Your task to perform on an android device: refresh tabs in the chrome app Image 0: 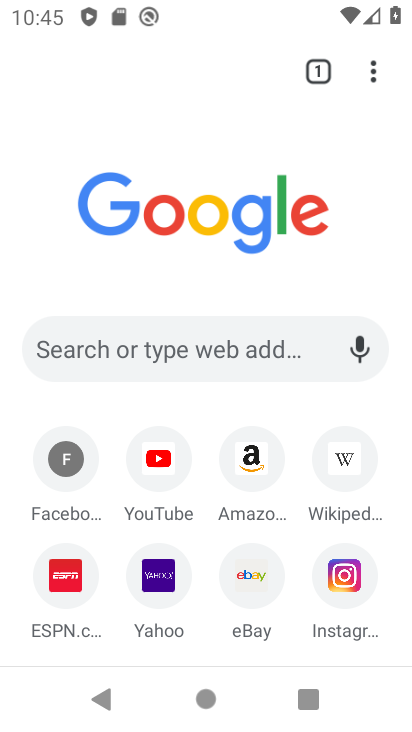
Step 0: press back button
Your task to perform on an android device: refresh tabs in the chrome app Image 1: 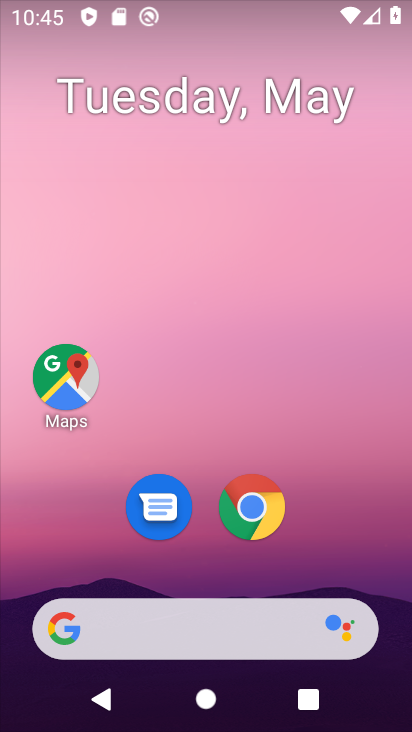
Step 1: drag from (258, 694) to (165, 90)
Your task to perform on an android device: refresh tabs in the chrome app Image 2: 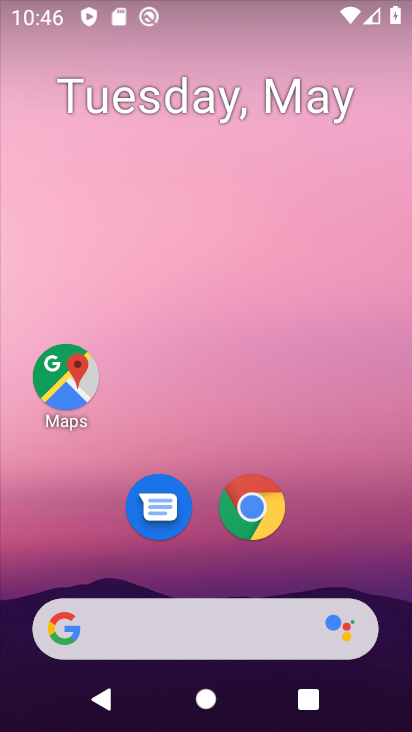
Step 2: drag from (275, 685) to (190, 105)
Your task to perform on an android device: refresh tabs in the chrome app Image 3: 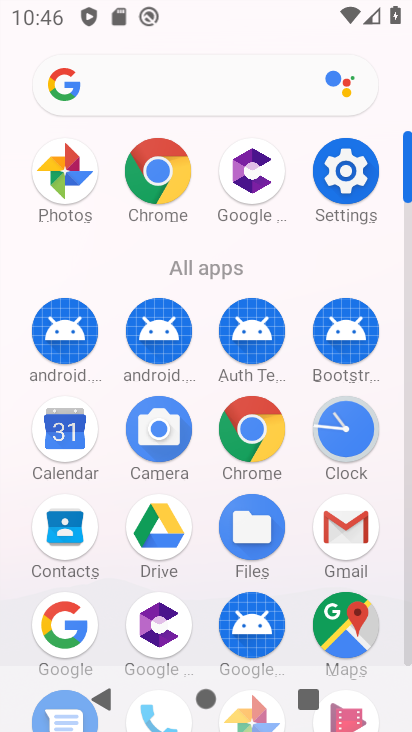
Step 3: drag from (230, 662) to (144, 0)
Your task to perform on an android device: refresh tabs in the chrome app Image 4: 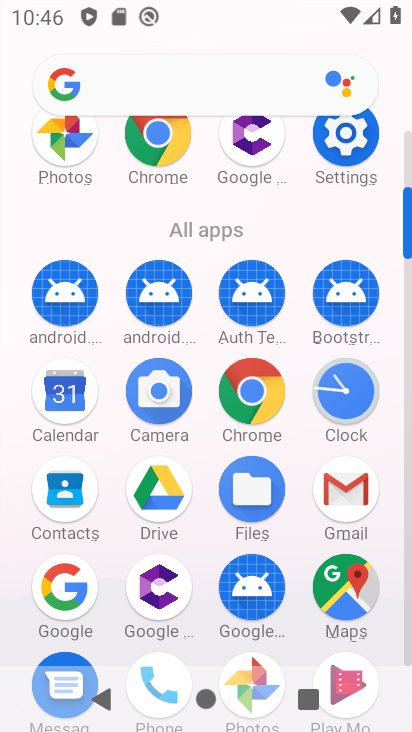
Step 4: click (157, 135)
Your task to perform on an android device: refresh tabs in the chrome app Image 5: 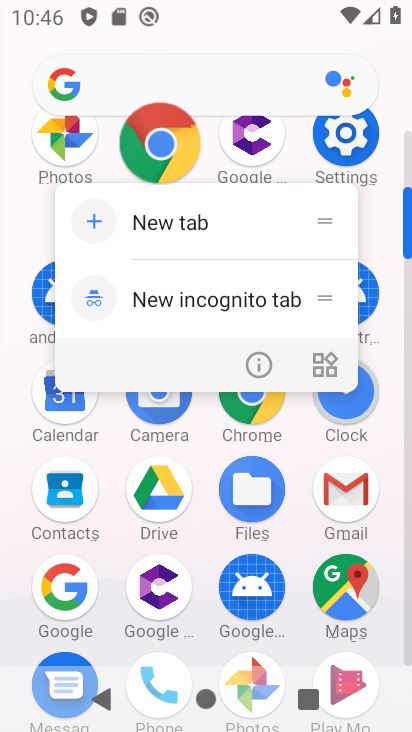
Step 5: click (159, 145)
Your task to perform on an android device: refresh tabs in the chrome app Image 6: 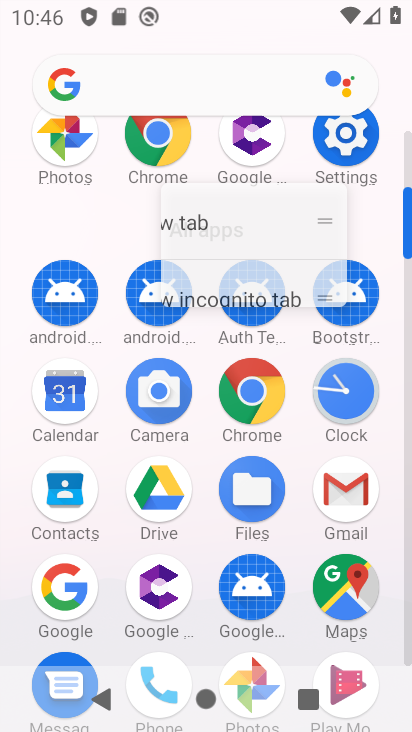
Step 6: click (159, 145)
Your task to perform on an android device: refresh tabs in the chrome app Image 7: 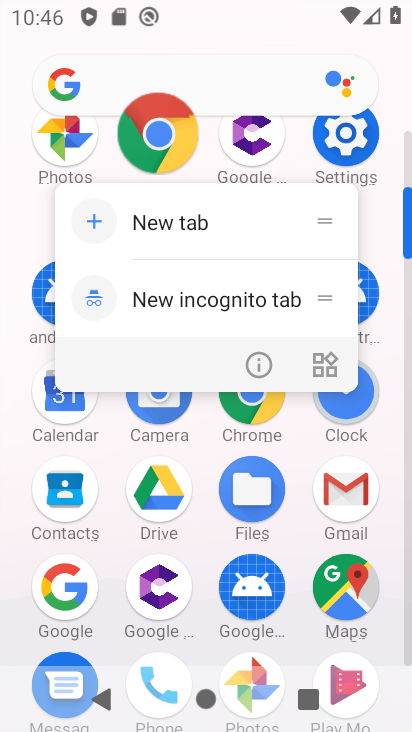
Step 7: click (159, 147)
Your task to perform on an android device: refresh tabs in the chrome app Image 8: 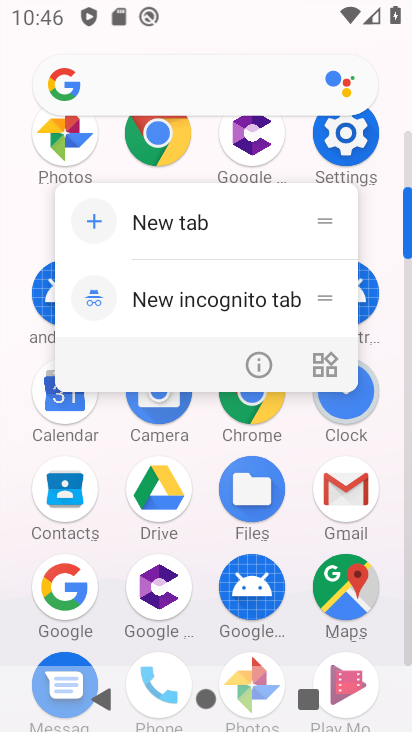
Step 8: click (160, 148)
Your task to perform on an android device: refresh tabs in the chrome app Image 9: 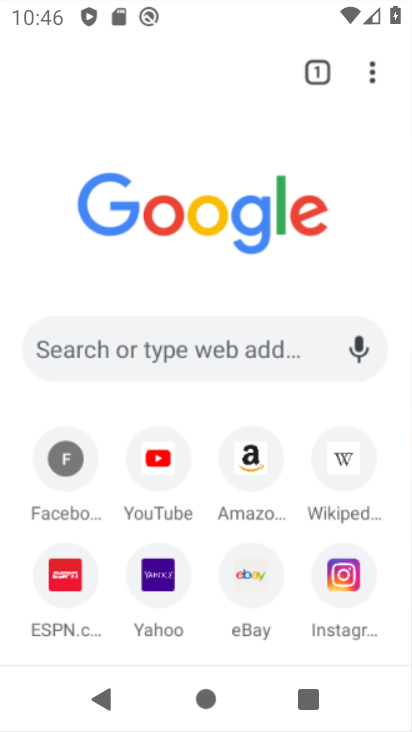
Step 9: click (163, 143)
Your task to perform on an android device: refresh tabs in the chrome app Image 10: 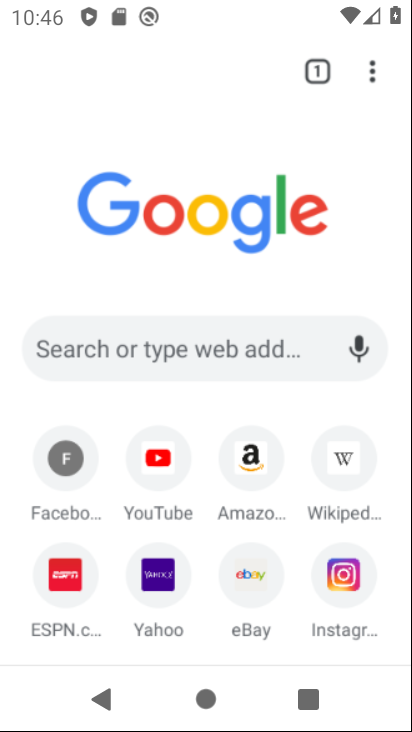
Step 10: click (163, 143)
Your task to perform on an android device: refresh tabs in the chrome app Image 11: 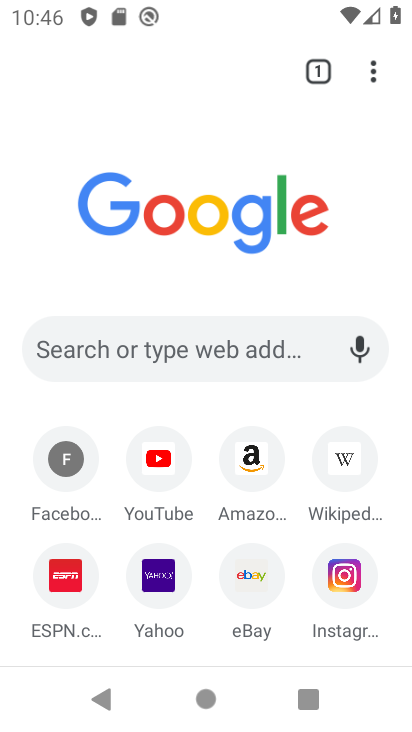
Step 11: click (368, 66)
Your task to perform on an android device: refresh tabs in the chrome app Image 12: 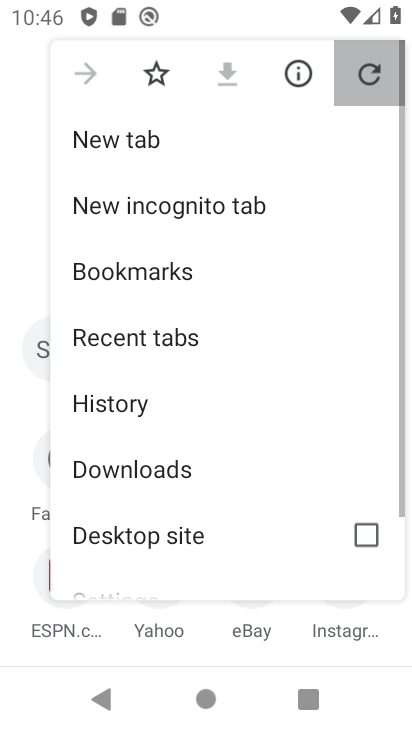
Step 12: click (368, 68)
Your task to perform on an android device: refresh tabs in the chrome app Image 13: 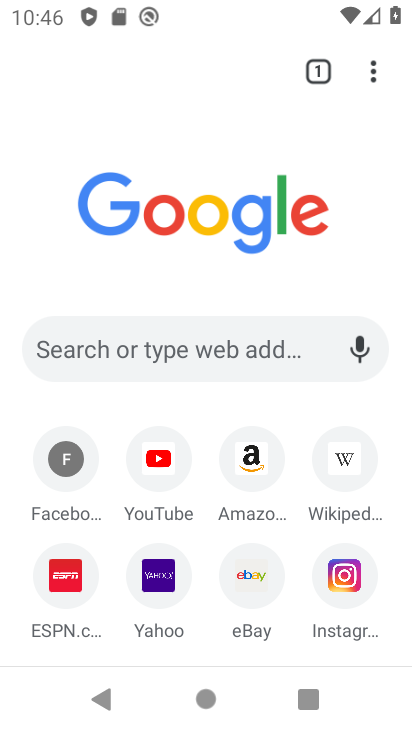
Step 13: click (368, 68)
Your task to perform on an android device: refresh tabs in the chrome app Image 14: 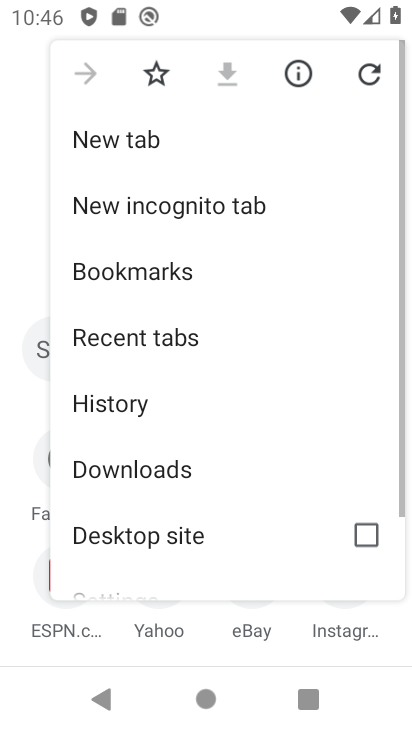
Step 14: task complete